Your task to perform on an android device: check battery use Image 0: 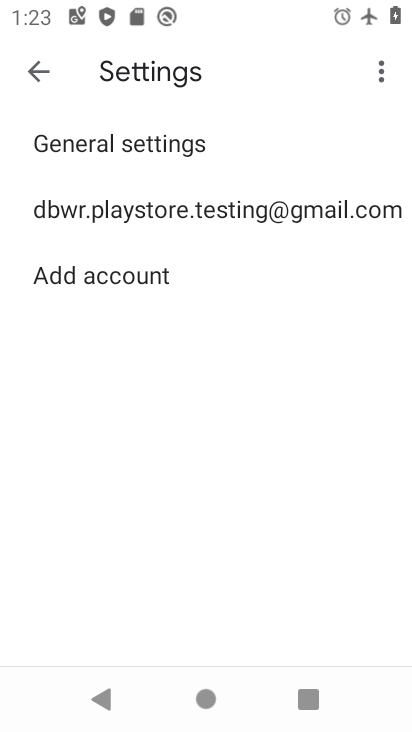
Step 0: press home button
Your task to perform on an android device: check battery use Image 1: 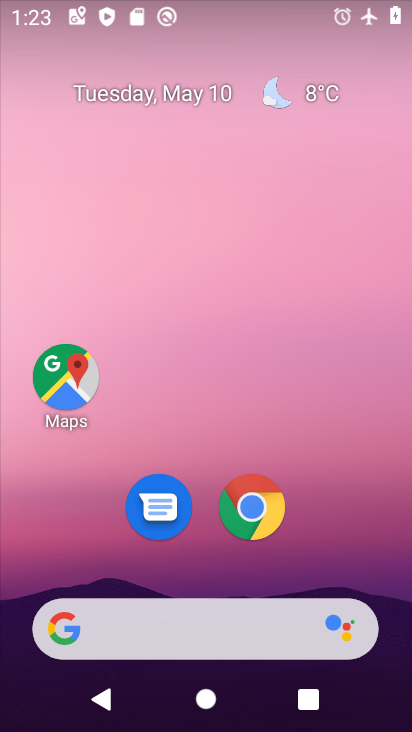
Step 1: drag from (230, 729) to (228, 239)
Your task to perform on an android device: check battery use Image 2: 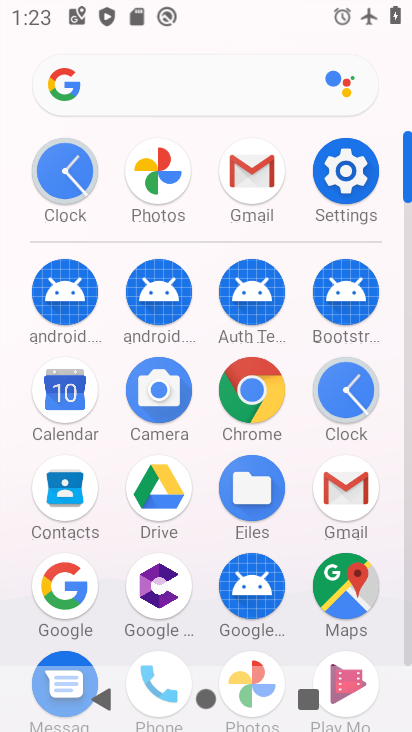
Step 2: click (349, 172)
Your task to perform on an android device: check battery use Image 3: 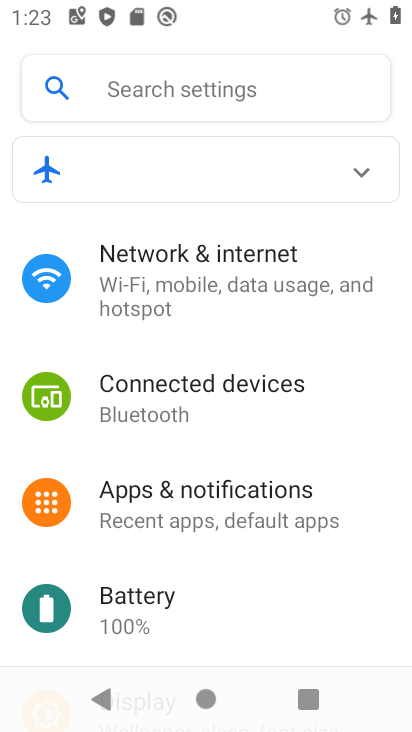
Step 3: drag from (200, 601) to (210, 300)
Your task to perform on an android device: check battery use Image 4: 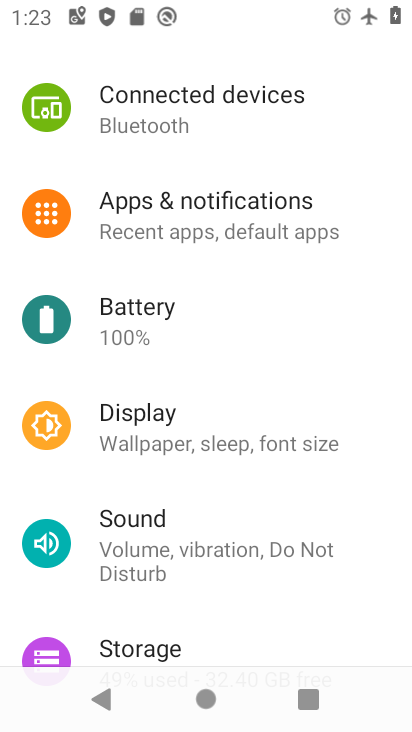
Step 4: drag from (169, 600) to (173, 478)
Your task to perform on an android device: check battery use Image 5: 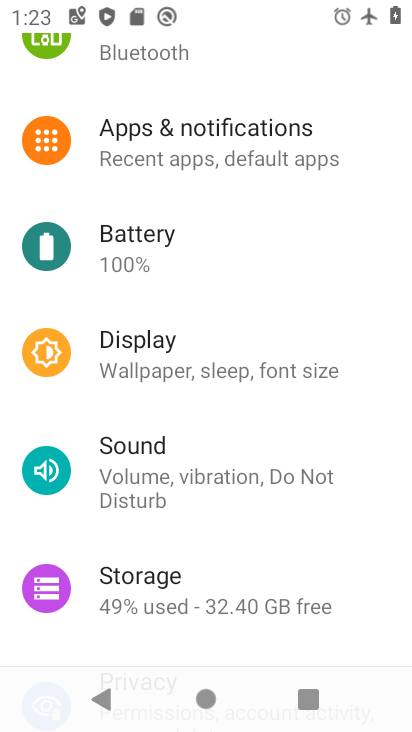
Step 5: click (138, 231)
Your task to perform on an android device: check battery use Image 6: 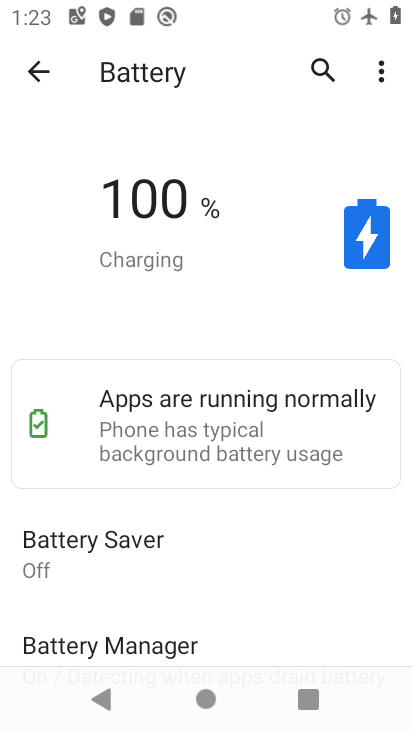
Step 6: click (379, 73)
Your task to perform on an android device: check battery use Image 7: 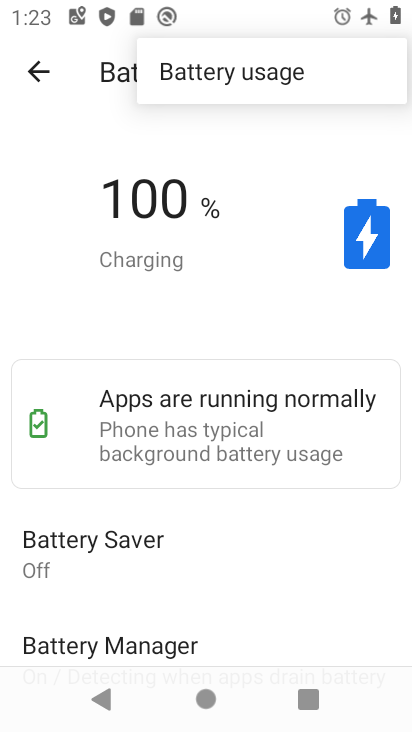
Step 7: click (237, 75)
Your task to perform on an android device: check battery use Image 8: 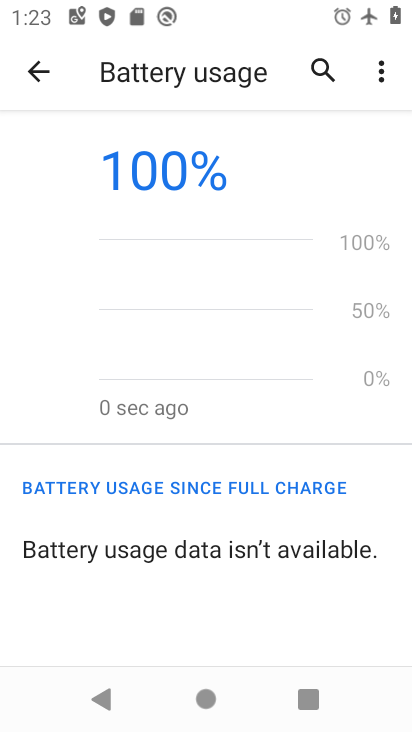
Step 8: task complete